Your task to perform on an android device: change timer sound Image 0: 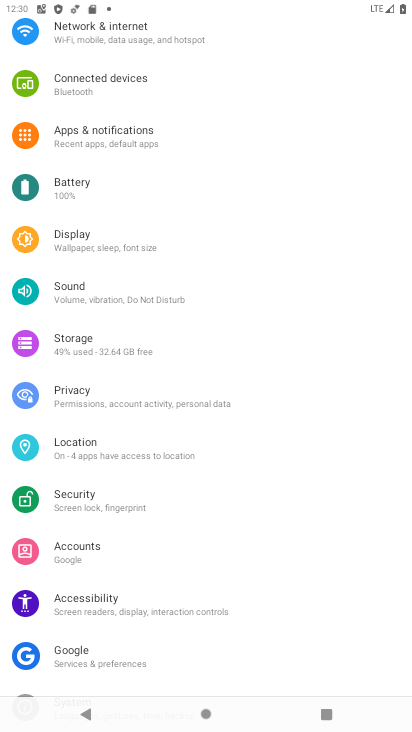
Step 0: press home button
Your task to perform on an android device: change timer sound Image 1: 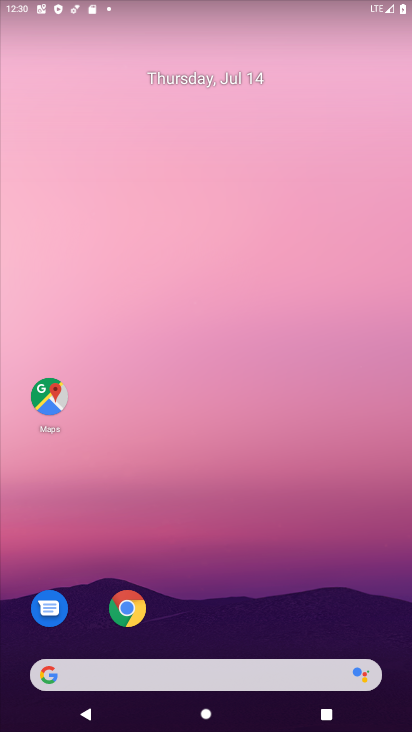
Step 1: drag from (35, 614) to (379, 43)
Your task to perform on an android device: change timer sound Image 2: 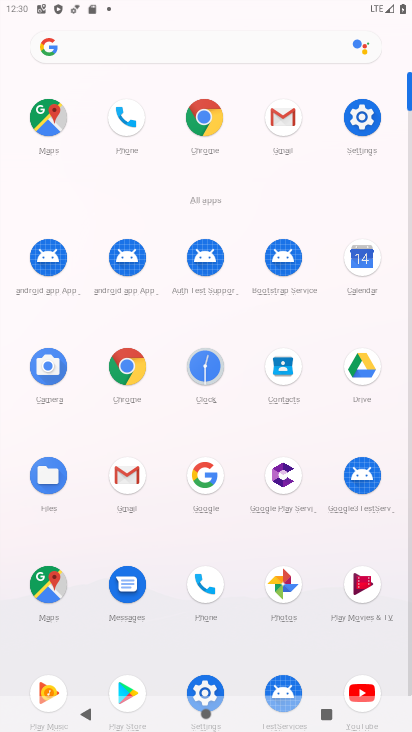
Step 2: click (369, 120)
Your task to perform on an android device: change timer sound Image 3: 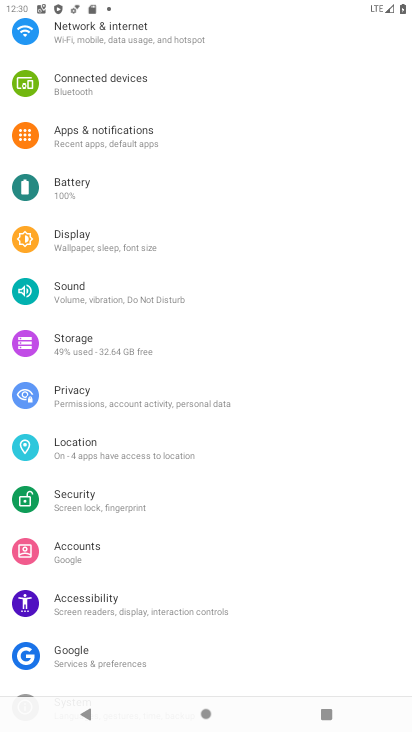
Step 3: click (114, 293)
Your task to perform on an android device: change timer sound Image 4: 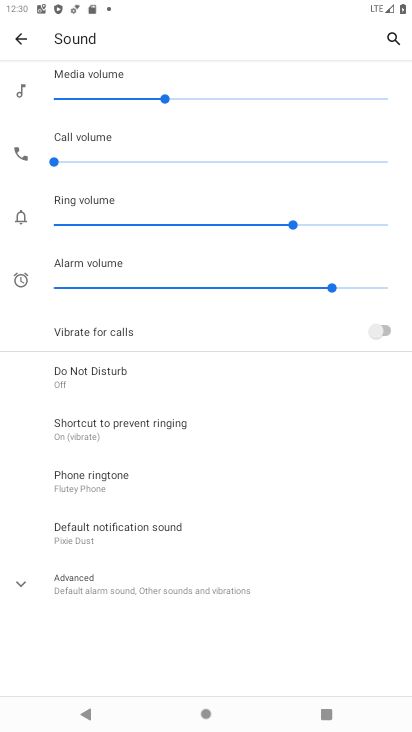
Step 4: task complete